Your task to perform on an android device: toggle sleep mode Image 0: 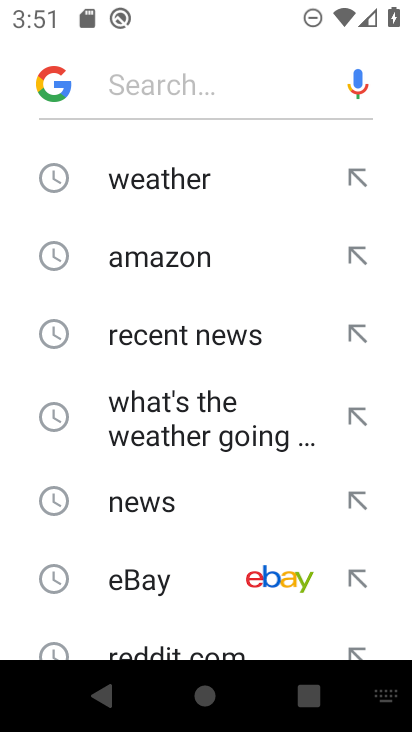
Step 0: press back button
Your task to perform on an android device: toggle sleep mode Image 1: 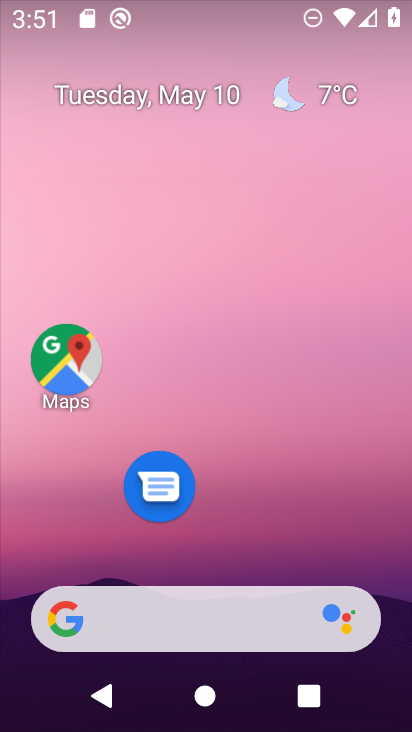
Step 1: drag from (289, 541) to (217, 80)
Your task to perform on an android device: toggle sleep mode Image 2: 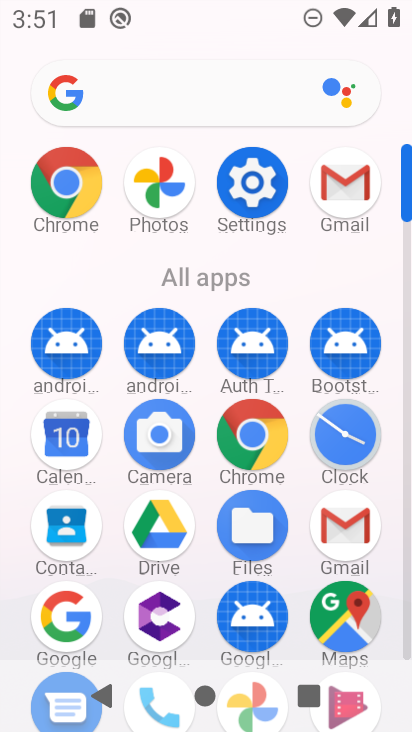
Step 2: click (259, 190)
Your task to perform on an android device: toggle sleep mode Image 3: 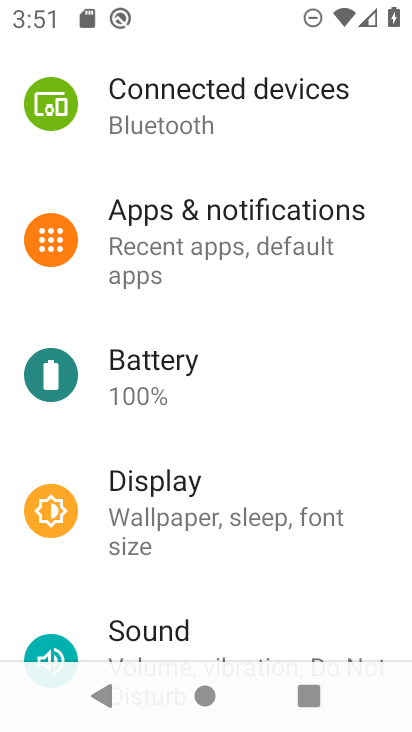
Step 3: drag from (259, 191) to (245, 538)
Your task to perform on an android device: toggle sleep mode Image 4: 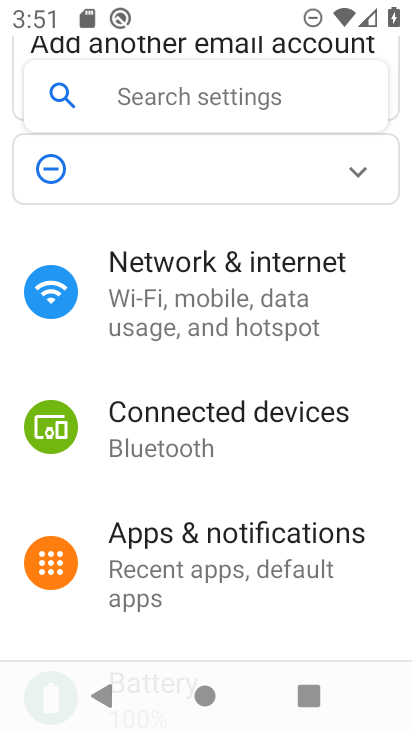
Step 4: drag from (270, 537) to (282, 267)
Your task to perform on an android device: toggle sleep mode Image 5: 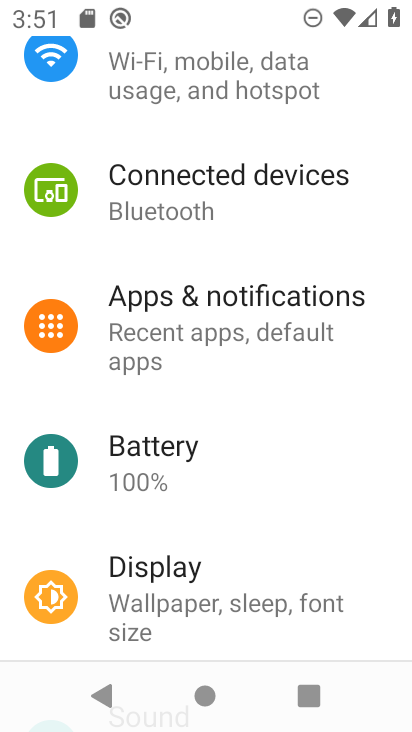
Step 5: drag from (264, 514) to (254, 196)
Your task to perform on an android device: toggle sleep mode Image 6: 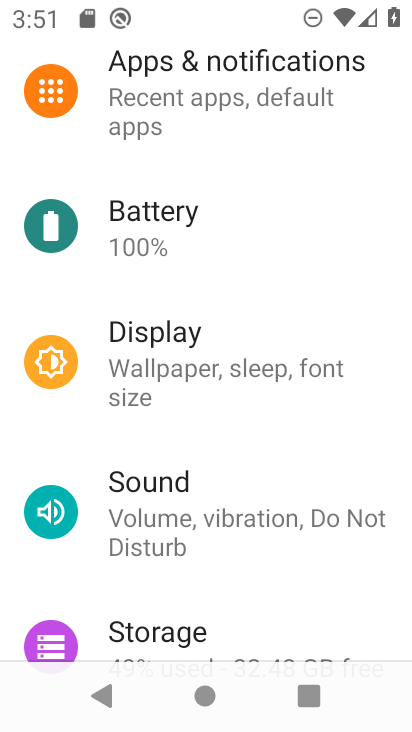
Step 6: click (218, 345)
Your task to perform on an android device: toggle sleep mode Image 7: 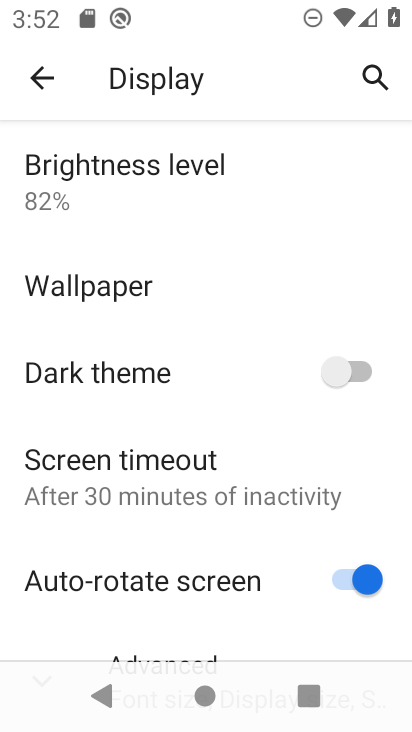
Step 7: drag from (156, 533) to (188, 192)
Your task to perform on an android device: toggle sleep mode Image 8: 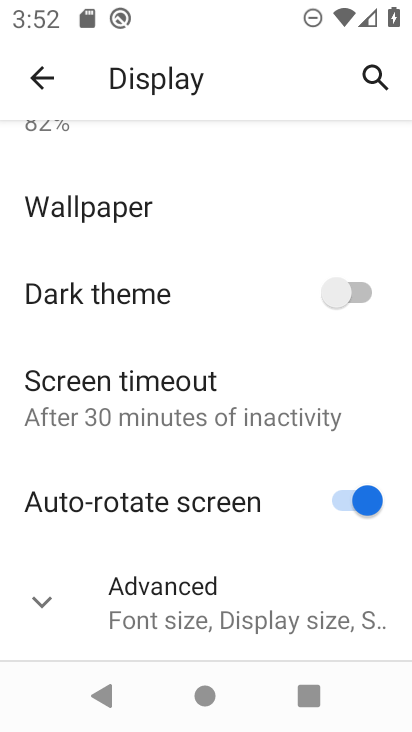
Step 8: click (43, 588)
Your task to perform on an android device: toggle sleep mode Image 9: 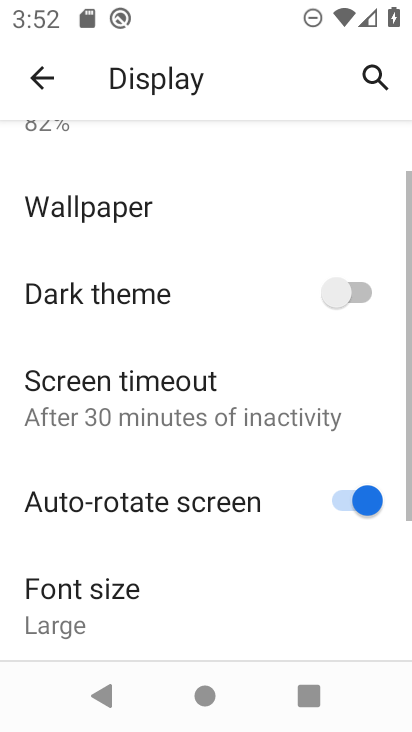
Step 9: task complete